Your task to perform on an android device: turn off location Image 0: 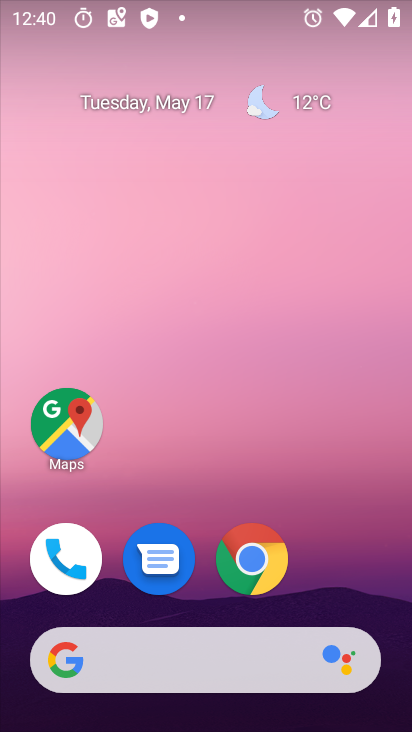
Step 0: drag from (335, 543) to (300, 145)
Your task to perform on an android device: turn off location Image 1: 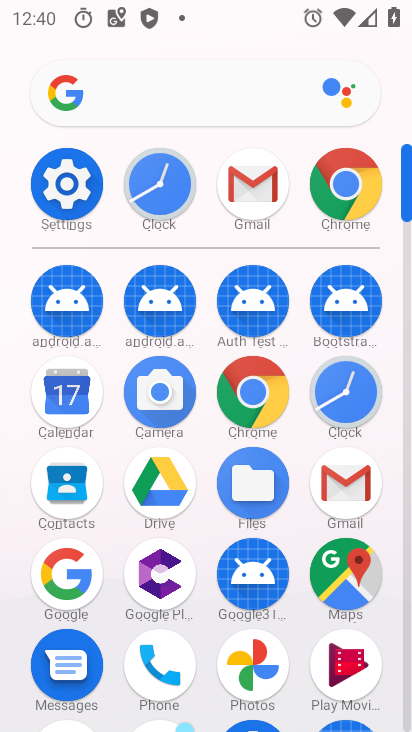
Step 1: click (73, 202)
Your task to perform on an android device: turn off location Image 2: 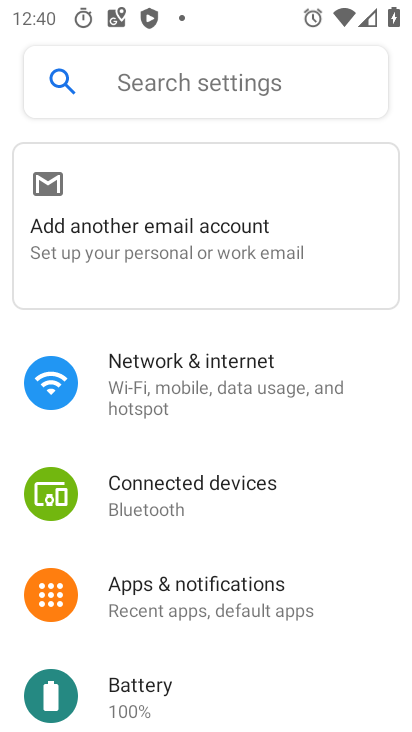
Step 2: drag from (300, 603) to (355, 174)
Your task to perform on an android device: turn off location Image 3: 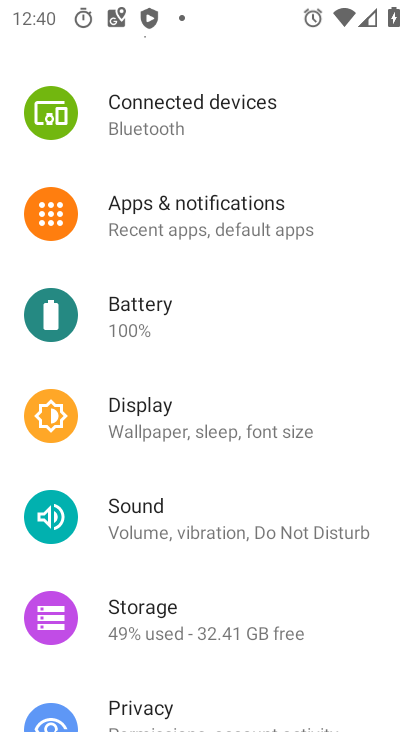
Step 3: drag from (271, 614) to (273, 174)
Your task to perform on an android device: turn off location Image 4: 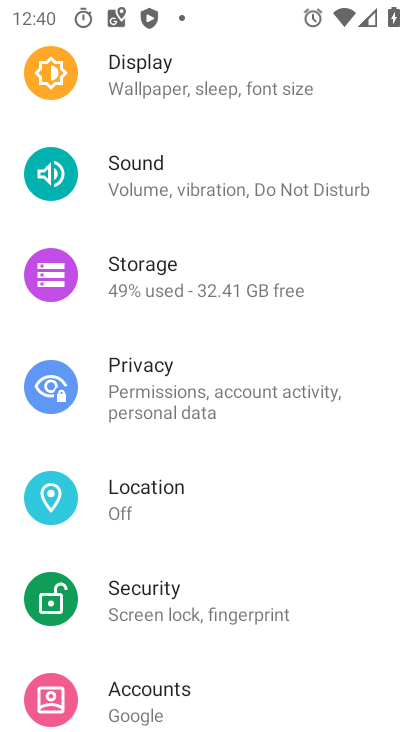
Step 4: click (180, 502)
Your task to perform on an android device: turn off location Image 5: 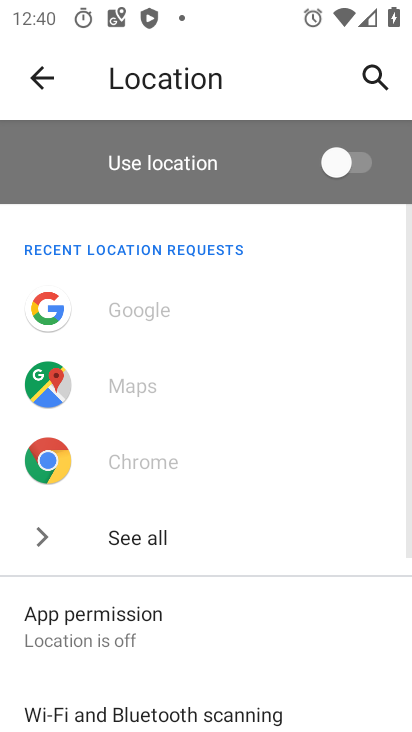
Step 5: task complete